Your task to perform on an android device: check storage Image 0: 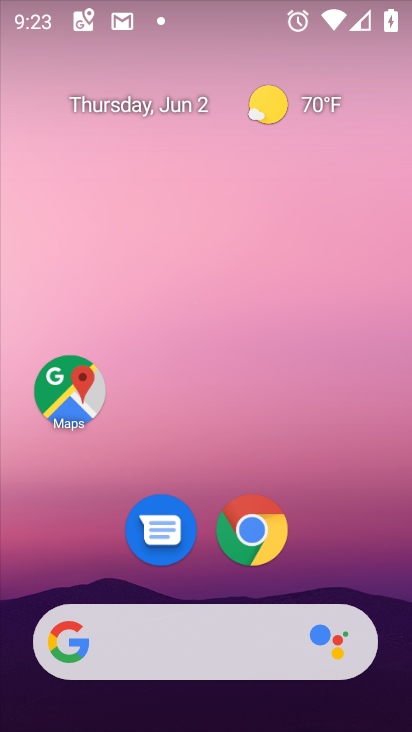
Step 0: drag from (229, 554) to (231, 293)
Your task to perform on an android device: check storage Image 1: 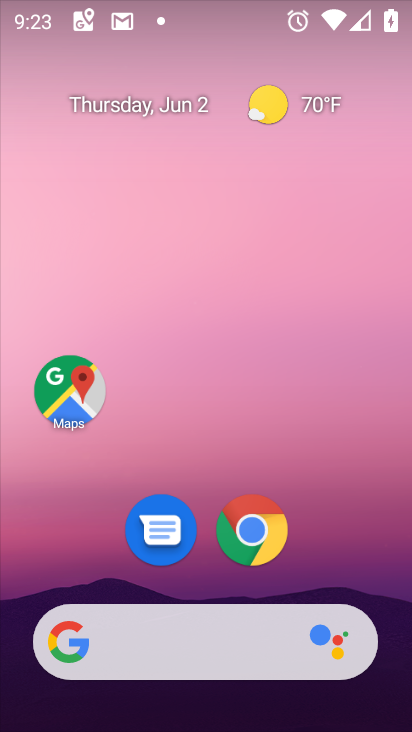
Step 1: drag from (168, 612) to (168, 214)
Your task to perform on an android device: check storage Image 2: 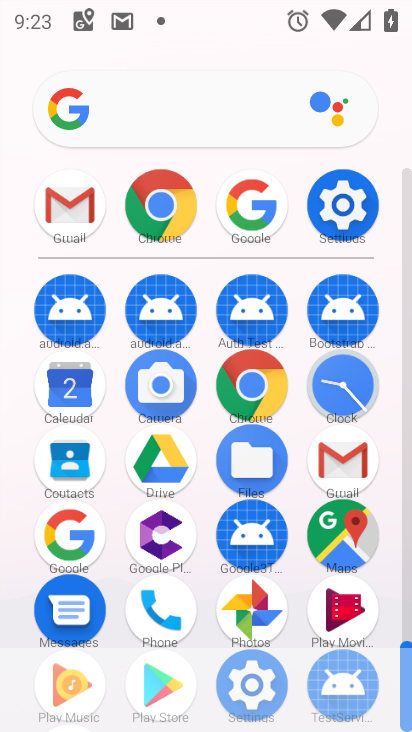
Step 2: click (346, 198)
Your task to perform on an android device: check storage Image 3: 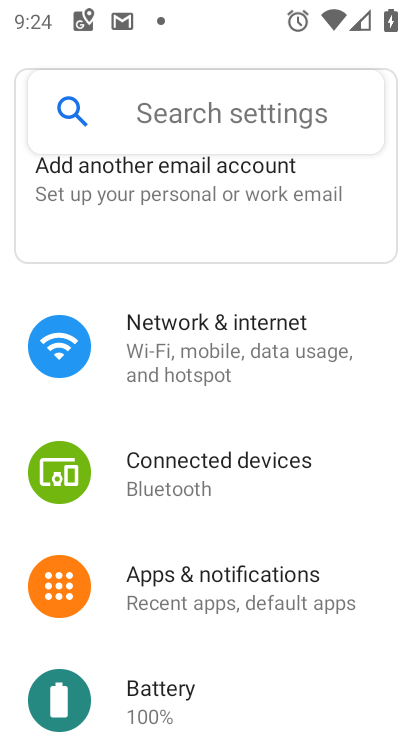
Step 3: drag from (153, 637) to (187, 292)
Your task to perform on an android device: check storage Image 4: 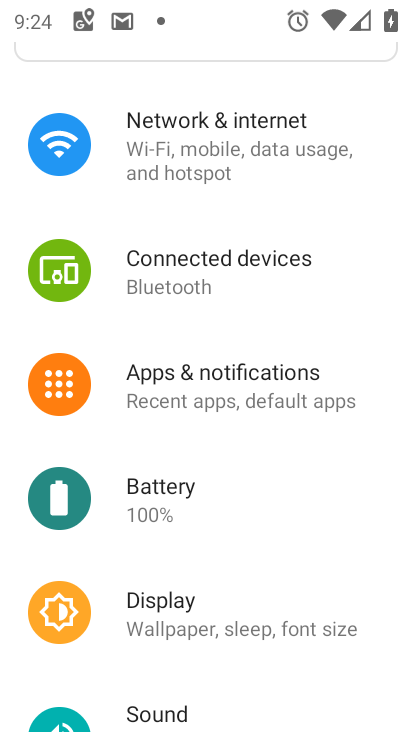
Step 4: drag from (165, 676) to (156, 364)
Your task to perform on an android device: check storage Image 5: 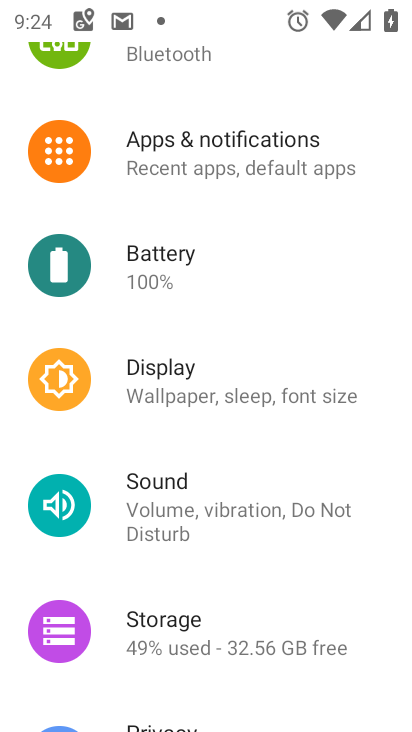
Step 5: click (167, 640)
Your task to perform on an android device: check storage Image 6: 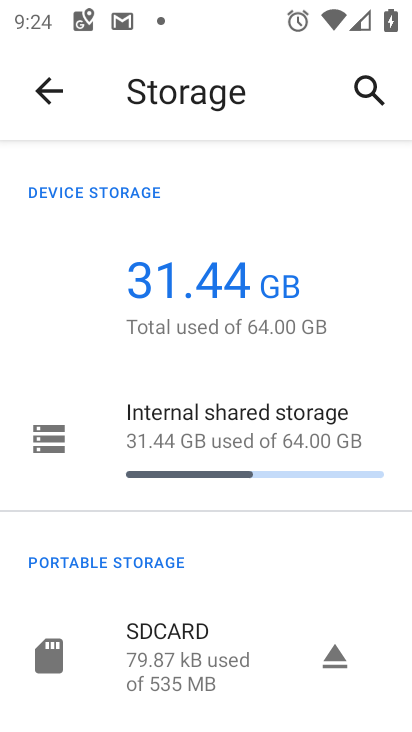
Step 6: task complete